Your task to perform on an android device: Do I have any events this weekend? Image 0: 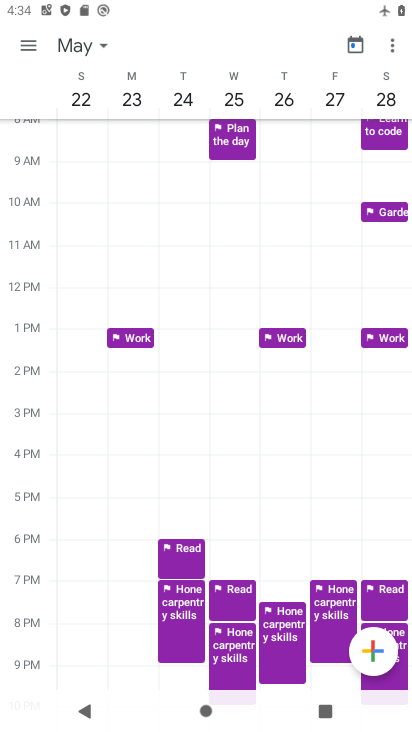
Step 0: drag from (105, 101) to (411, 209)
Your task to perform on an android device: Do I have any events this weekend? Image 1: 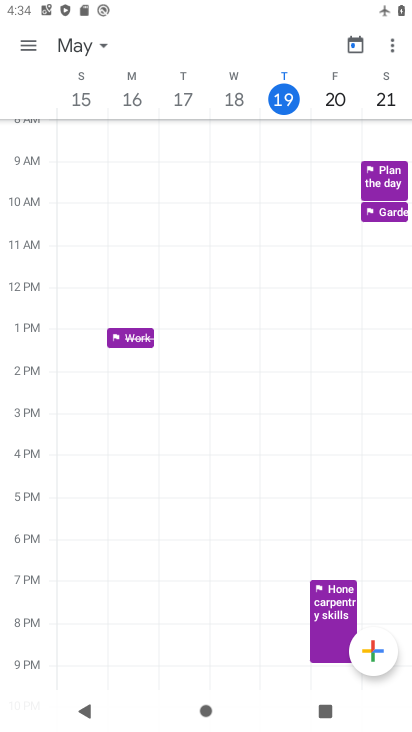
Step 1: task complete